Your task to perform on an android device: toggle location history Image 0: 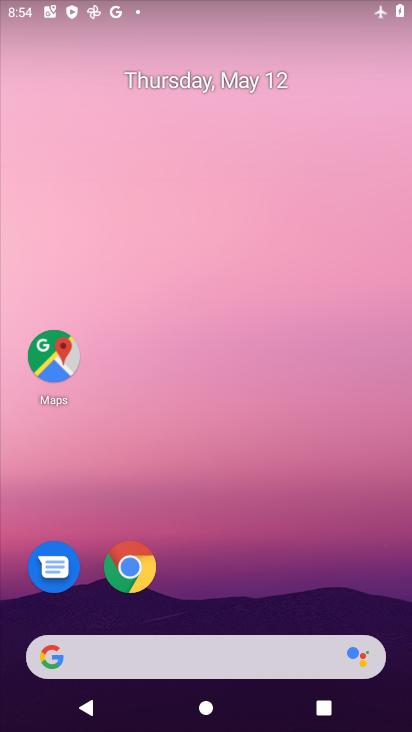
Step 0: drag from (194, 605) to (216, 171)
Your task to perform on an android device: toggle location history Image 1: 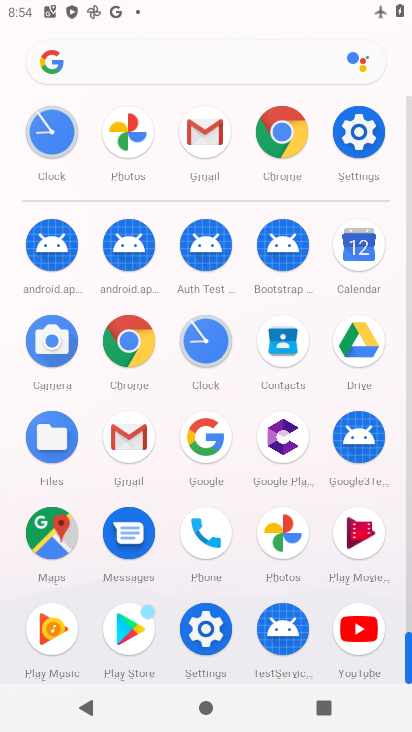
Step 1: click (369, 146)
Your task to perform on an android device: toggle location history Image 2: 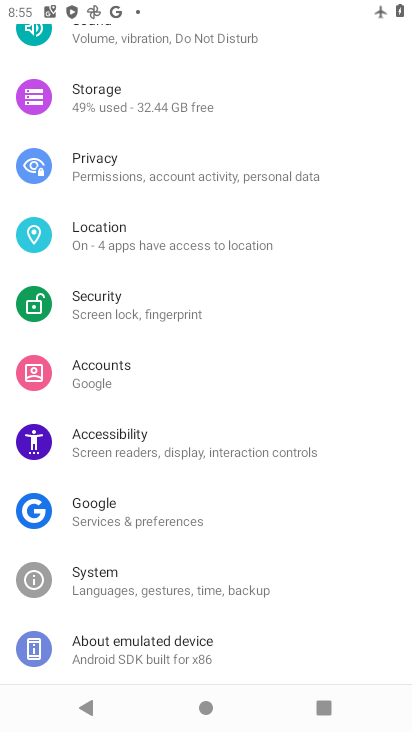
Step 2: click (149, 256)
Your task to perform on an android device: toggle location history Image 3: 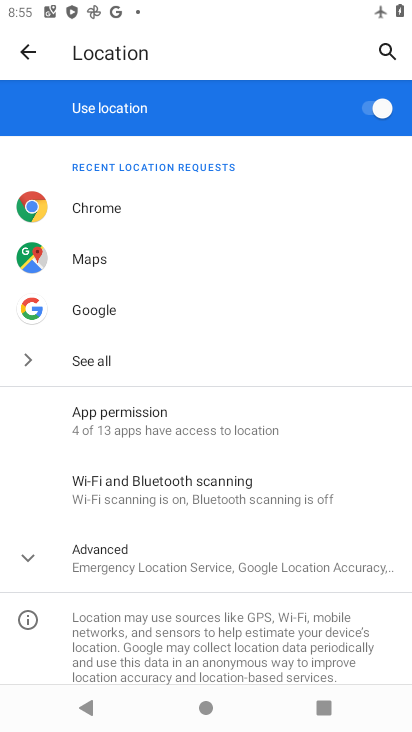
Step 3: click (148, 566)
Your task to perform on an android device: toggle location history Image 4: 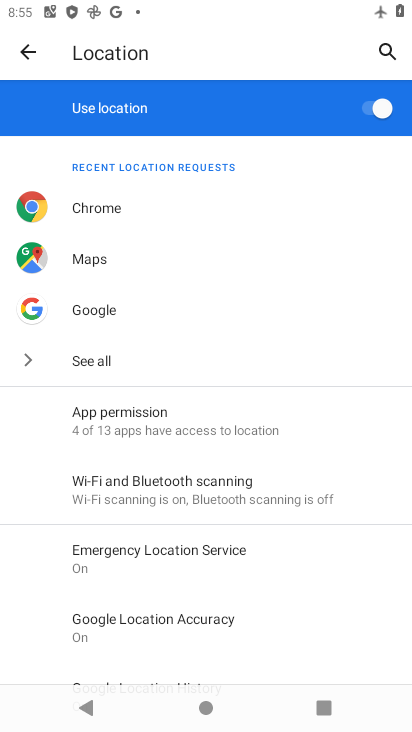
Step 4: drag from (98, 572) to (81, 358)
Your task to perform on an android device: toggle location history Image 5: 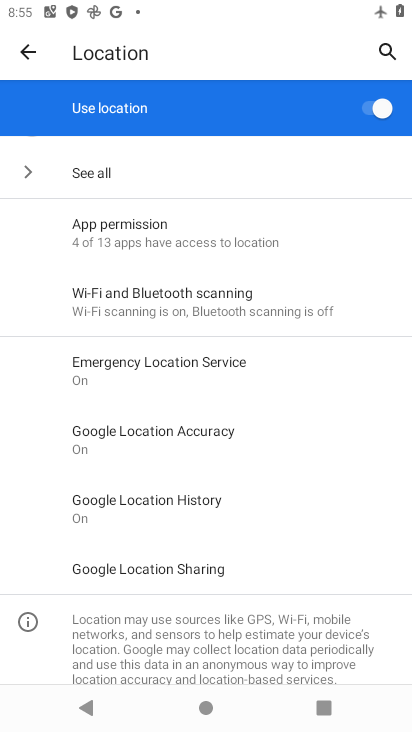
Step 5: click (190, 521)
Your task to perform on an android device: toggle location history Image 6: 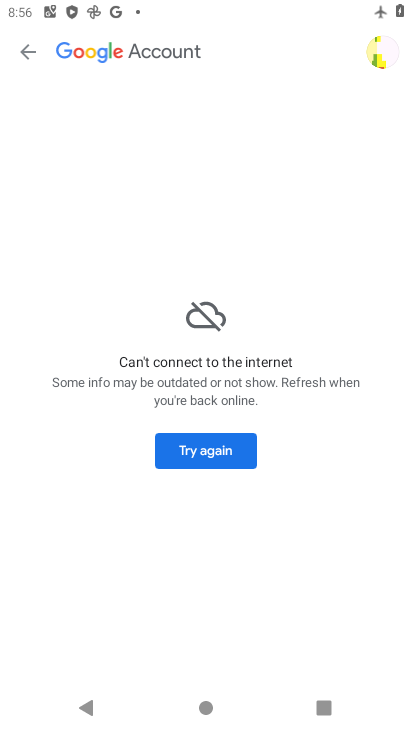
Step 6: task complete